Your task to perform on an android device: open sync settings in chrome Image 0: 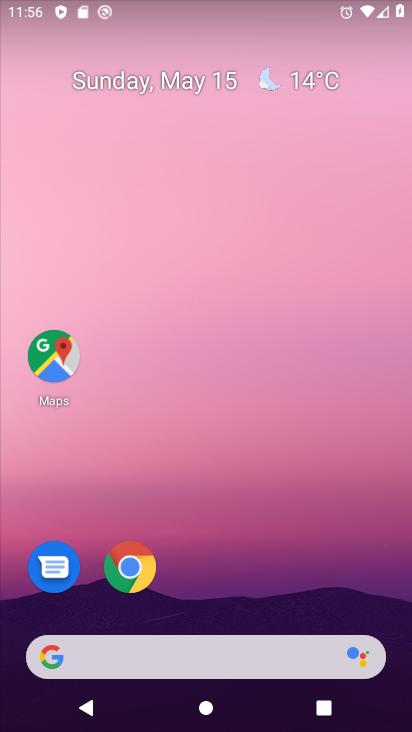
Step 0: click (134, 565)
Your task to perform on an android device: open sync settings in chrome Image 1: 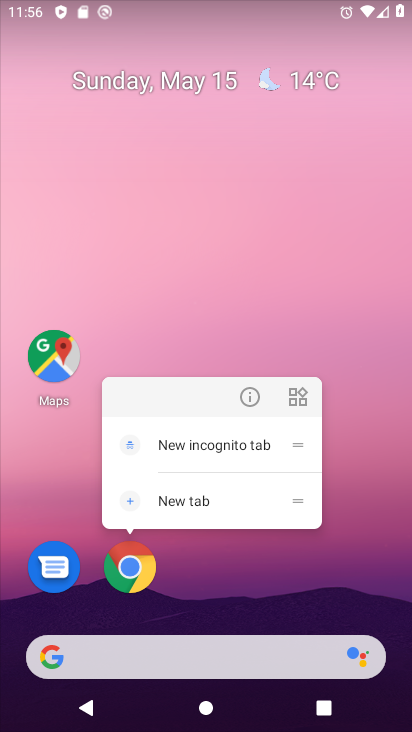
Step 1: click (133, 561)
Your task to perform on an android device: open sync settings in chrome Image 2: 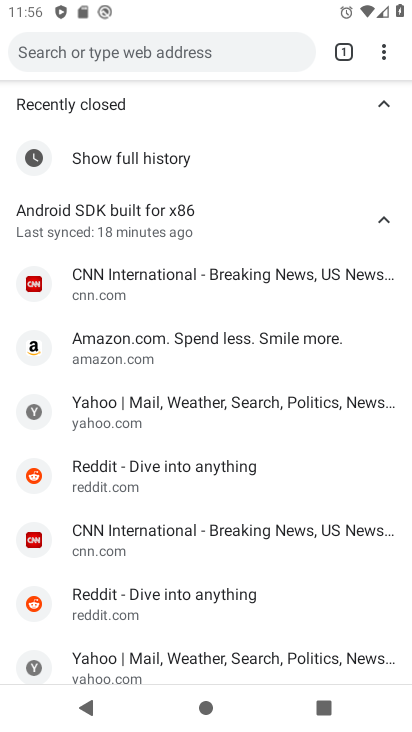
Step 2: click (383, 55)
Your task to perform on an android device: open sync settings in chrome Image 3: 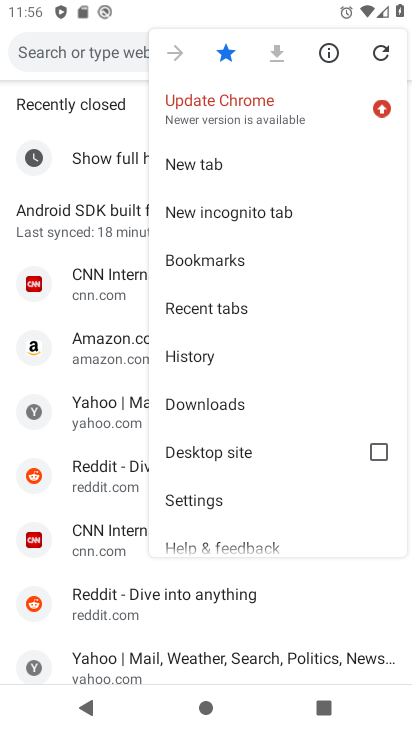
Step 3: click (229, 487)
Your task to perform on an android device: open sync settings in chrome Image 4: 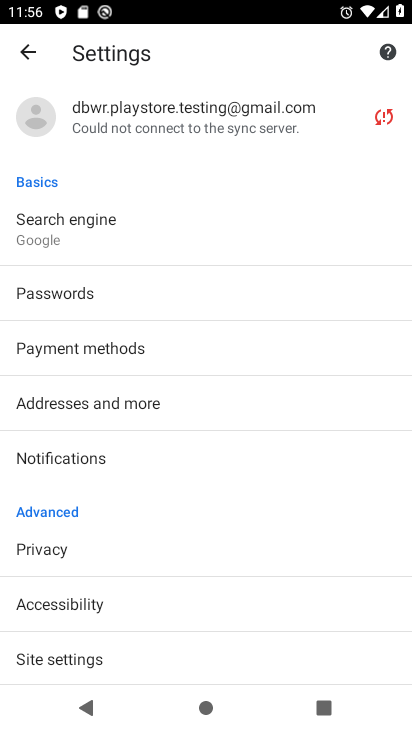
Step 4: click (186, 125)
Your task to perform on an android device: open sync settings in chrome Image 5: 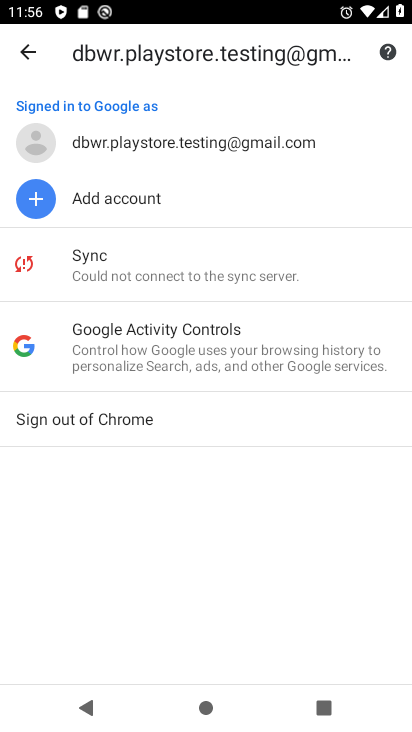
Step 5: click (149, 263)
Your task to perform on an android device: open sync settings in chrome Image 6: 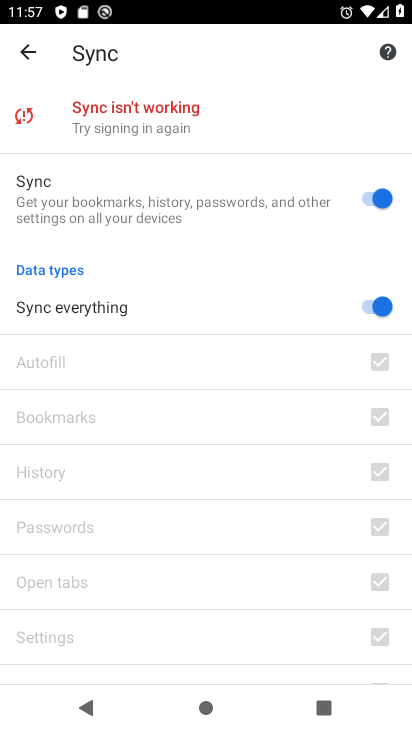
Step 6: task complete